Your task to perform on an android device: Open Google Maps and go to "Timeline" Image 0: 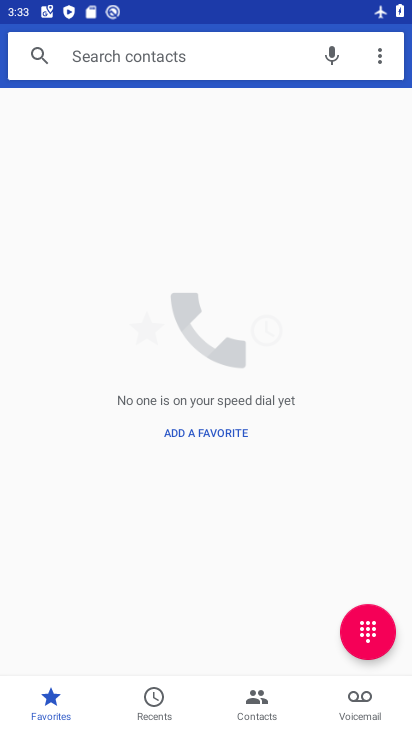
Step 0: press home button
Your task to perform on an android device: Open Google Maps and go to "Timeline" Image 1: 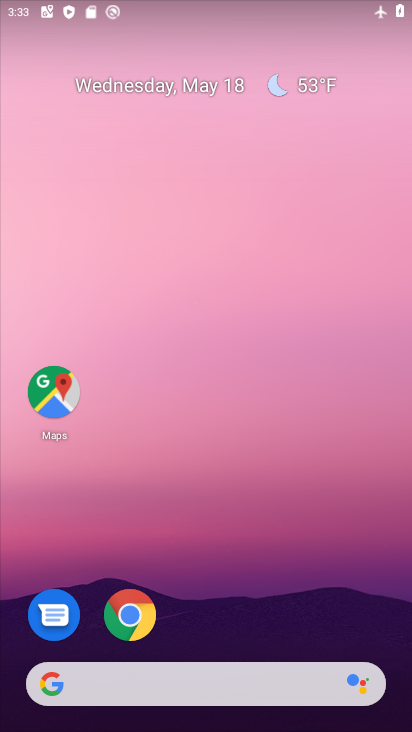
Step 1: click (60, 384)
Your task to perform on an android device: Open Google Maps and go to "Timeline" Image 2: 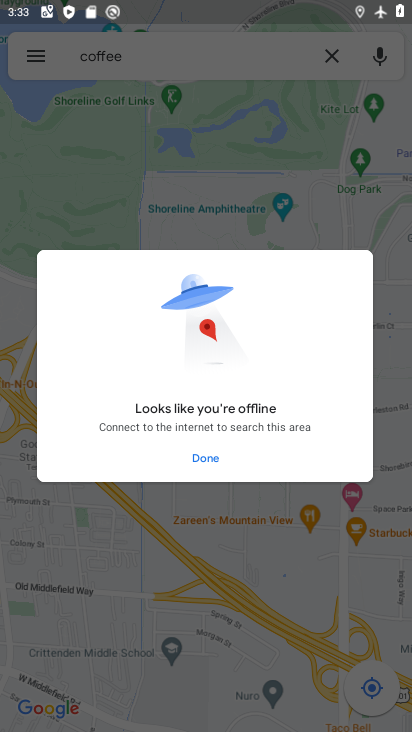
Step 2: task complete